Your task to perform on an android device: What's the weather? Image 0: 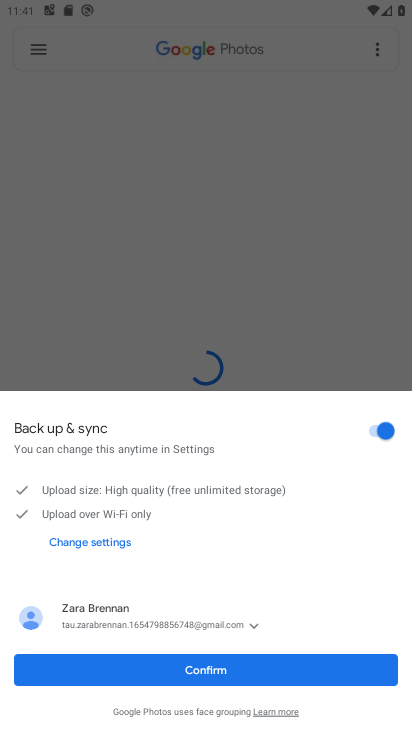
Step 0: press home button
Your task to perform on an android device: What's the weather? Image 1: 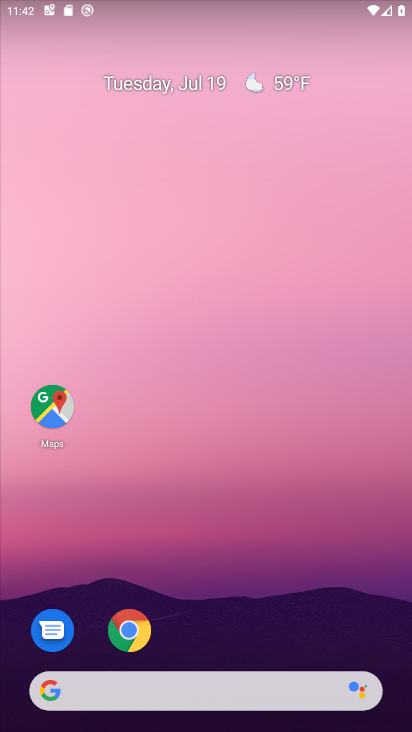
Step 1: click (283, 84)
Your task to perform on an android device: What's the weather? Image 2: 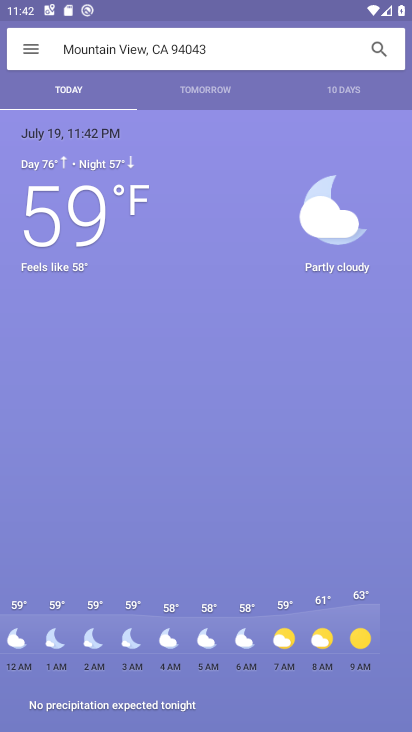
Step 2: task complete